Your task to perform on an android device: turn off notifications in google photos Image 0: 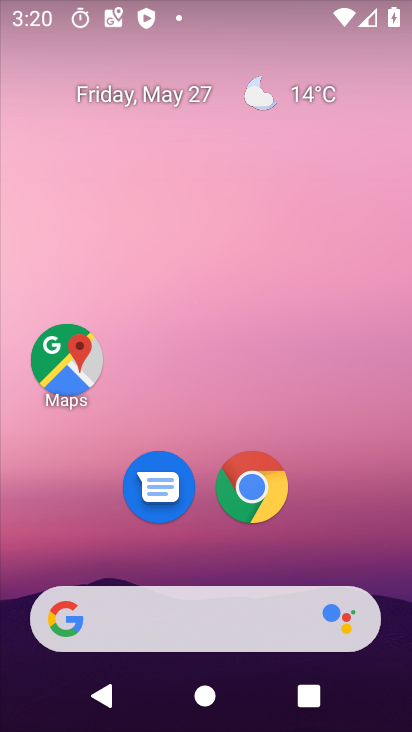
Step 0: drag from (378, 452) to (163, 31)
Your task to perform on an android device: turn off notifications in google photos Image 1: 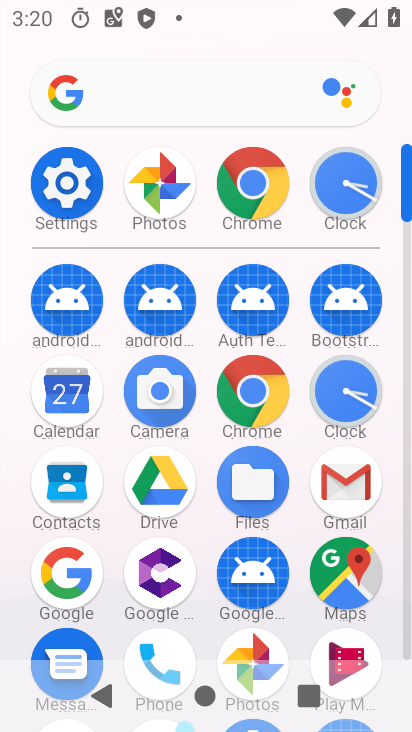
Step 1: click (165, 170)
Your task to perform on an android device: turn off notifications in google photos Image 2: 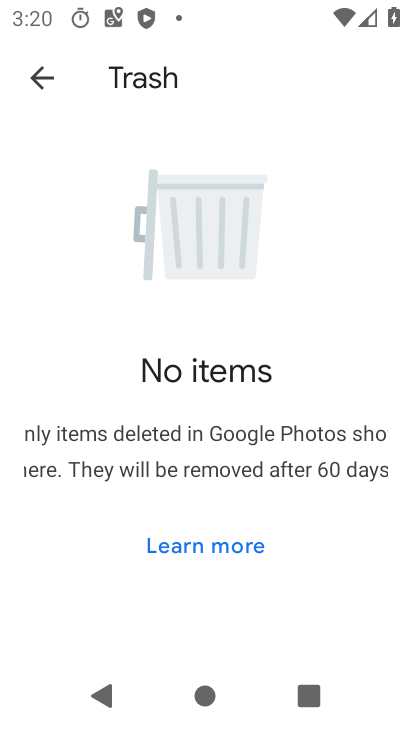
Step 2: click (40, 78)
Your task to perform on an android device: turn off notifications in google photos Image 3: 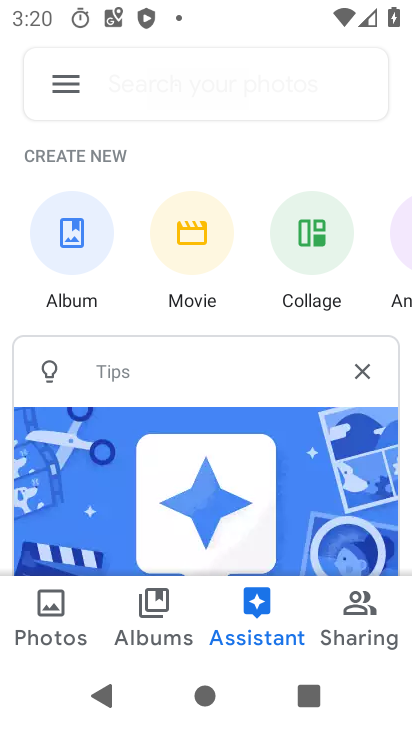
Step 3: click (57, 78)
Your task to perform on an android device: turn off notifications in google photos Image 4: 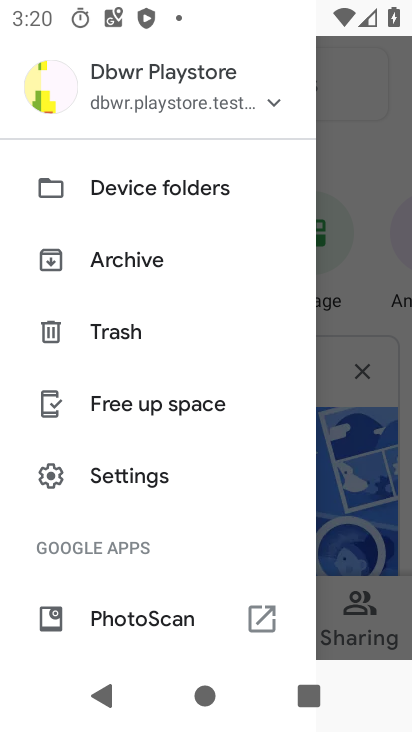
Step 4: drag from (52, 365) to (14, 0)
Your task to perform on an android device: turn off notifications in google photos Image 5: 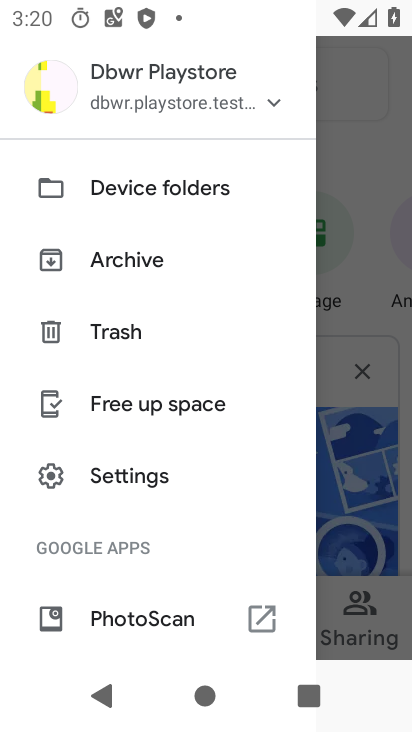
Step 5: click (135, 480)
Your task to perform on an android device: turn off notifications in google photos Image 6: 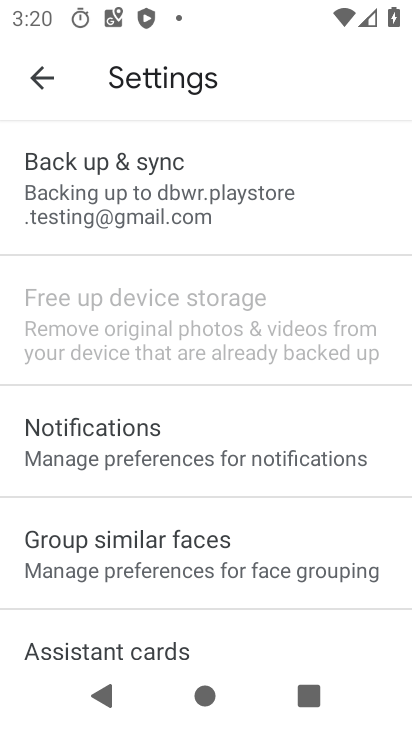
Step 6: click (114, 458)
Your task to perform on an android device: turn off notifications in google photos Image 7: 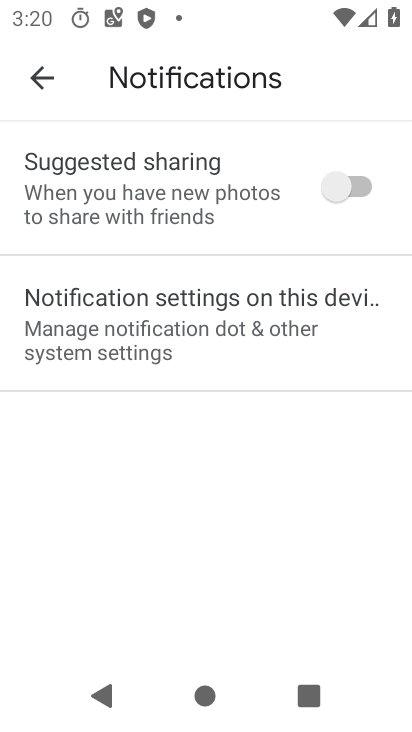
Step 7: click (122, 323)
Your task to perform on an android device: turn off notifications in google photos Image 8: 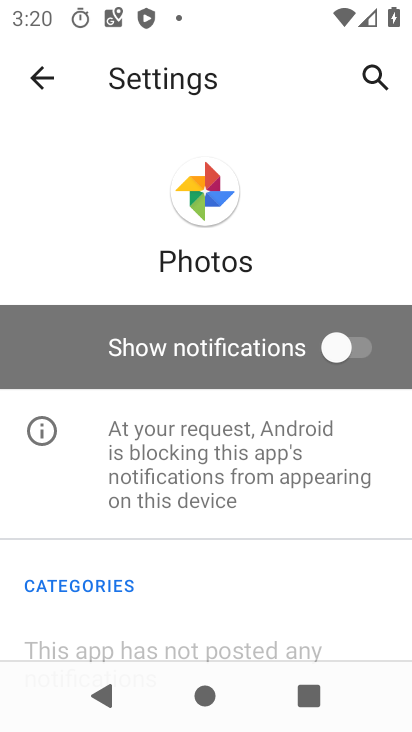
Step 8: task complete